Your task to perform on an android device: Empty the shopping cart on target.com. Add alienware area 51 to the cart on target.com, then select checkout. Image 0: 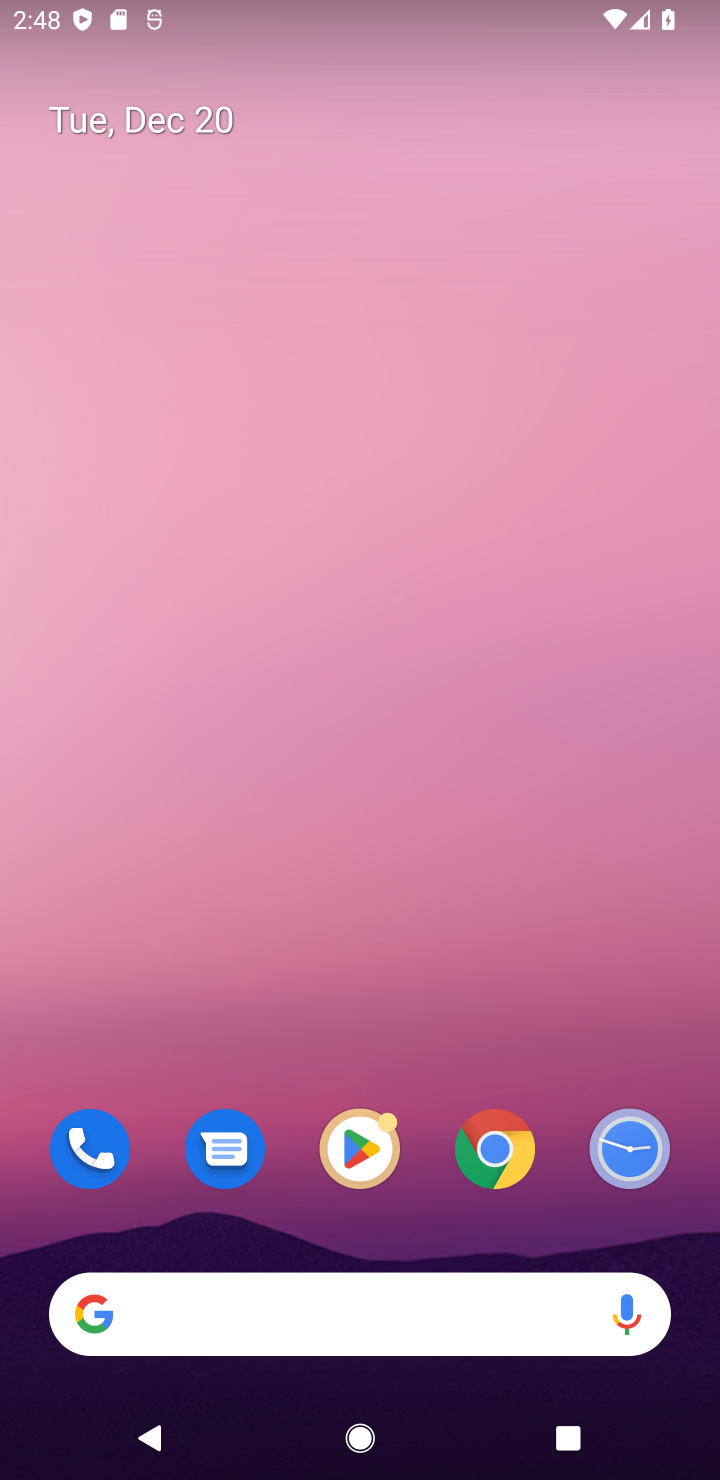
Step 0: click (487, 1152)
Your task to perform on an android device: Empty the shopping cart on target.com. Add alienware area 51 to the cart on target.com, then select checkout. Image 1: 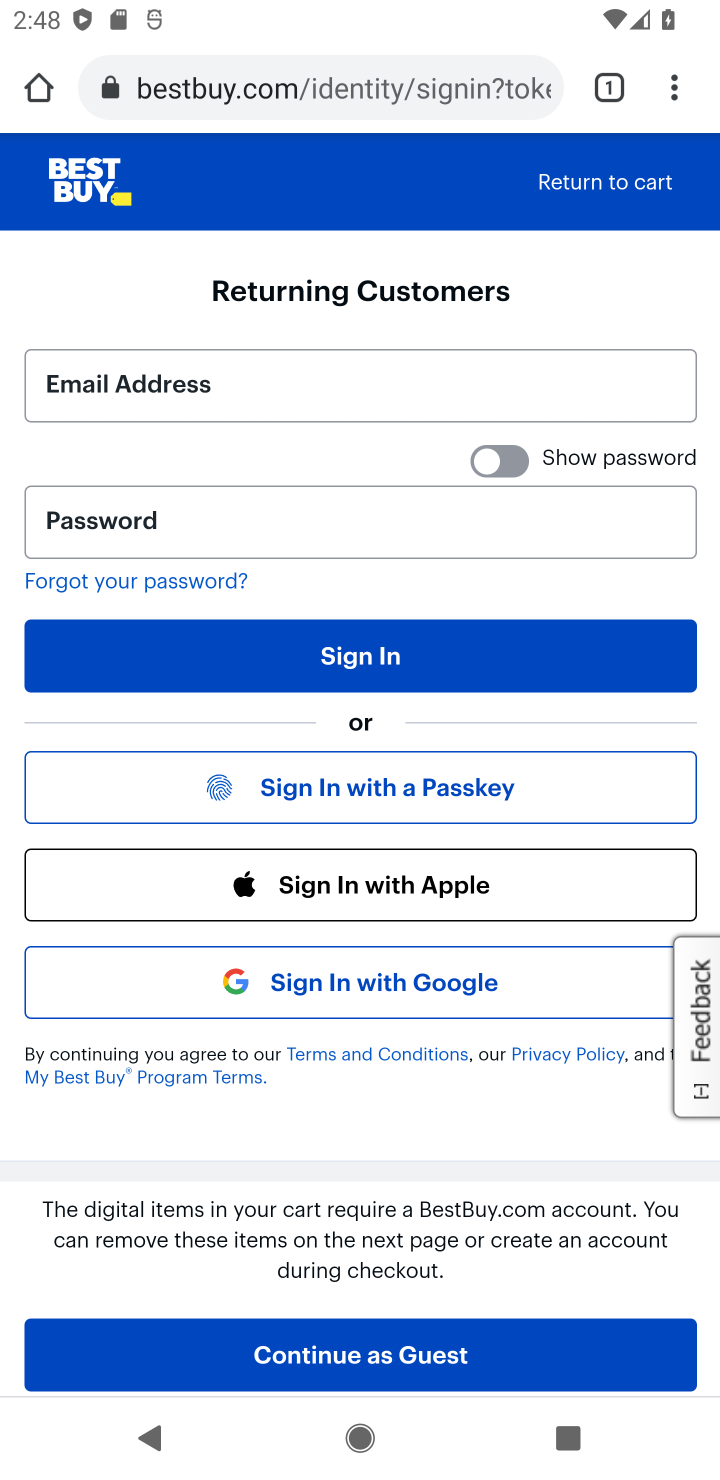
Step 1: click (260, 106)
Your task to perform on an android device: Empty the shopping cart on target.com. Add alienware area 51 to the cart on target.com, then select checkout. Image 2: 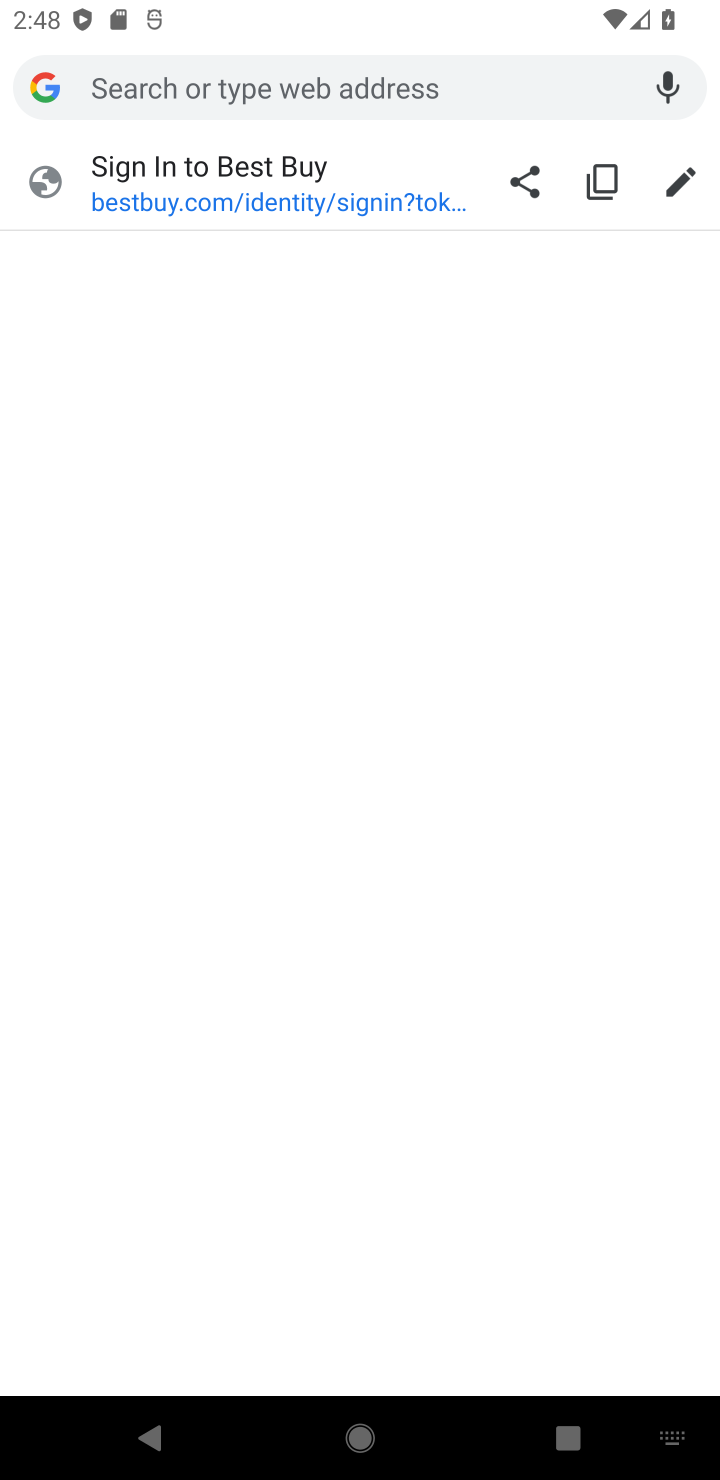
Step 2: type "target.com"
Your task to perform on an android device: Empty the shopping cart on target.com. Add alienware area 51 to the cart on target.com, then select checkout. Image 3: 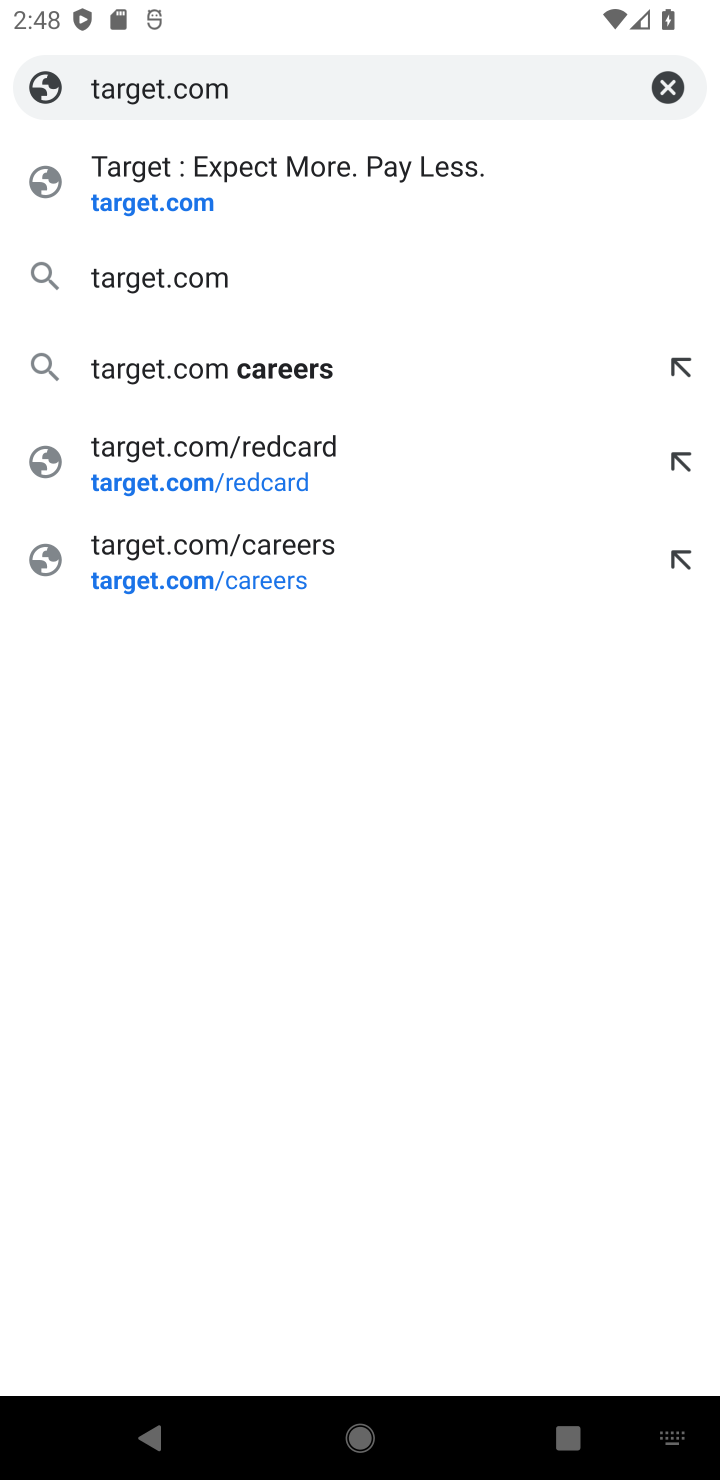
Step 3: click (181, 216)
Your task to perform on an android device: Empty the shopping cart on target.com. Add alienware area 51 to the cart on target.com, then select checkout. Image 4: 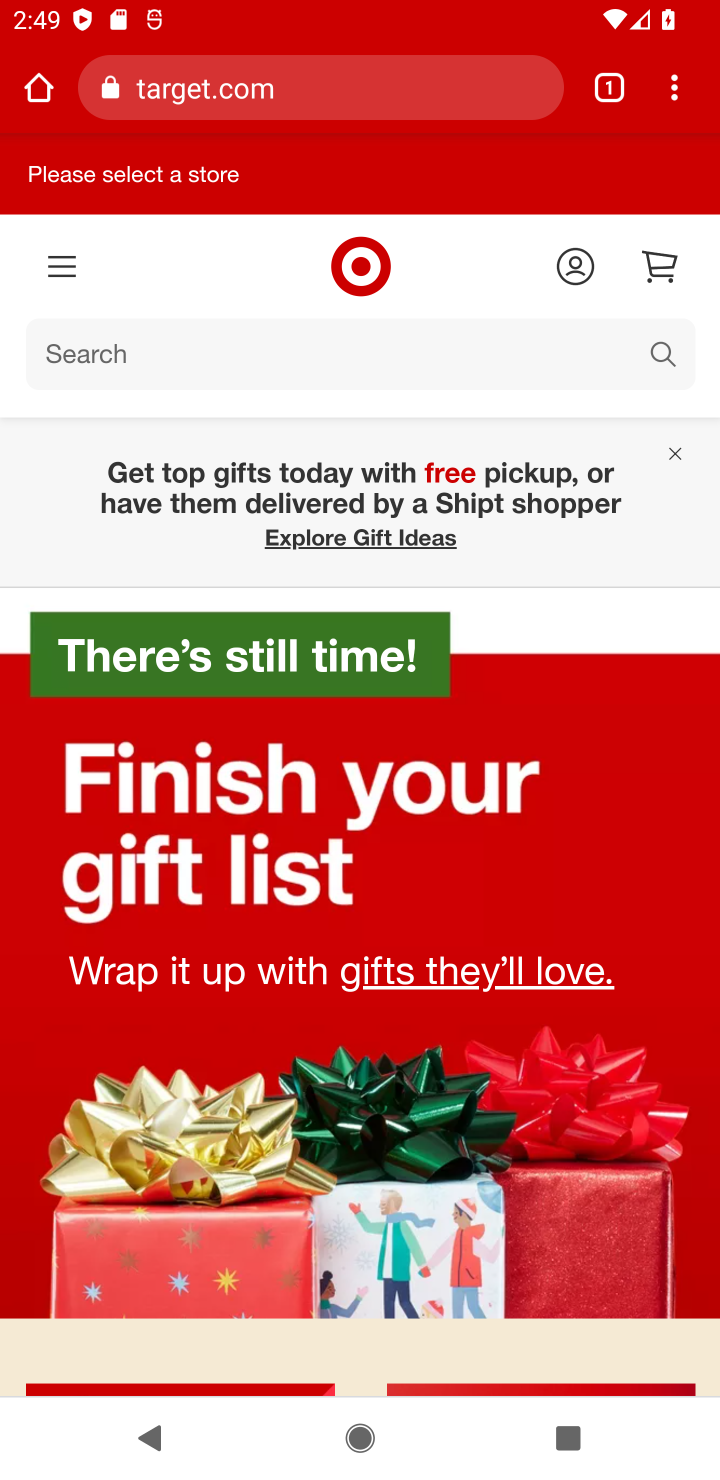
Step 4: click (649, 266)
Your task to perform on an android device: Empty the shopping cart on target.com. Add alienware area 51 to the cart on target.com, then select checkout. Image 5: 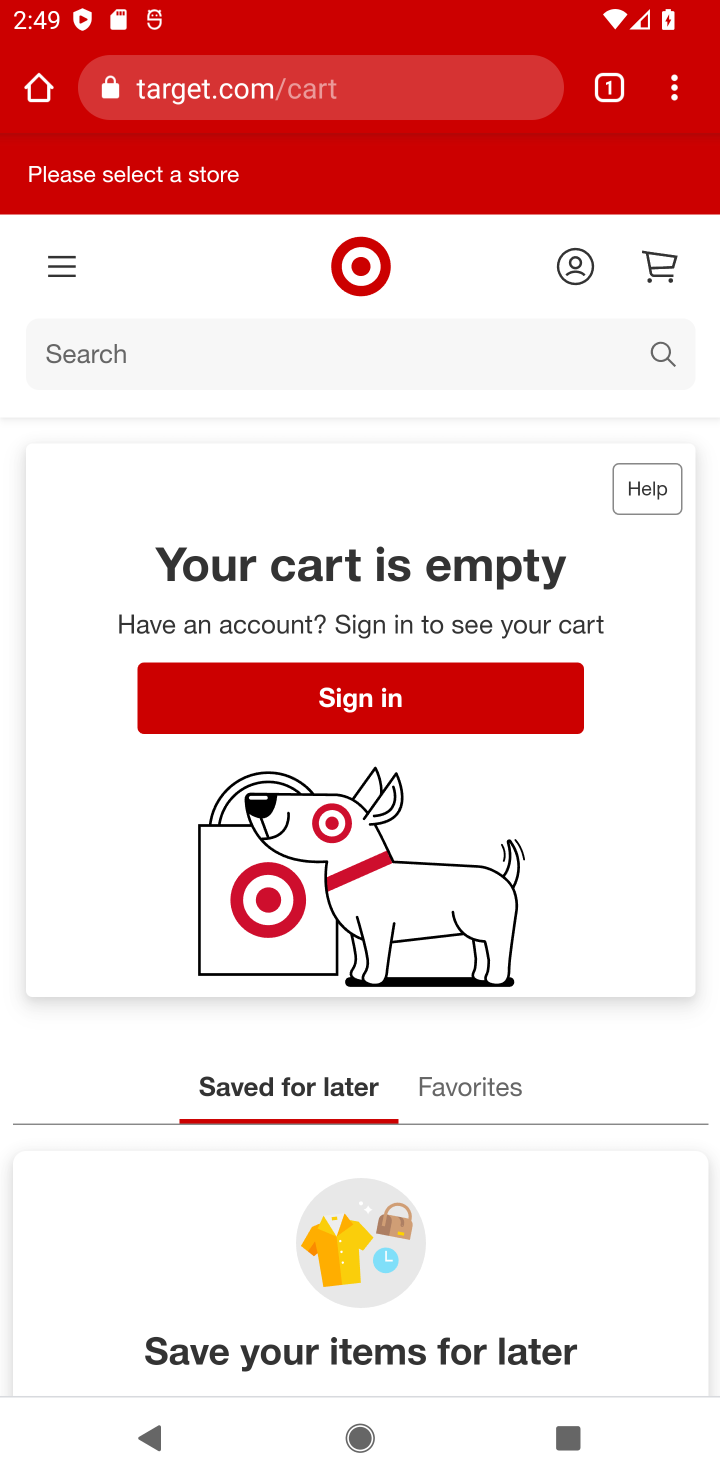
Step 5: click (114, 356)
Your task to perform on an android device: Empty the shopping cart on target.com. Add alienware area 51 to the cart on target.com, then select checkout. Image 6: 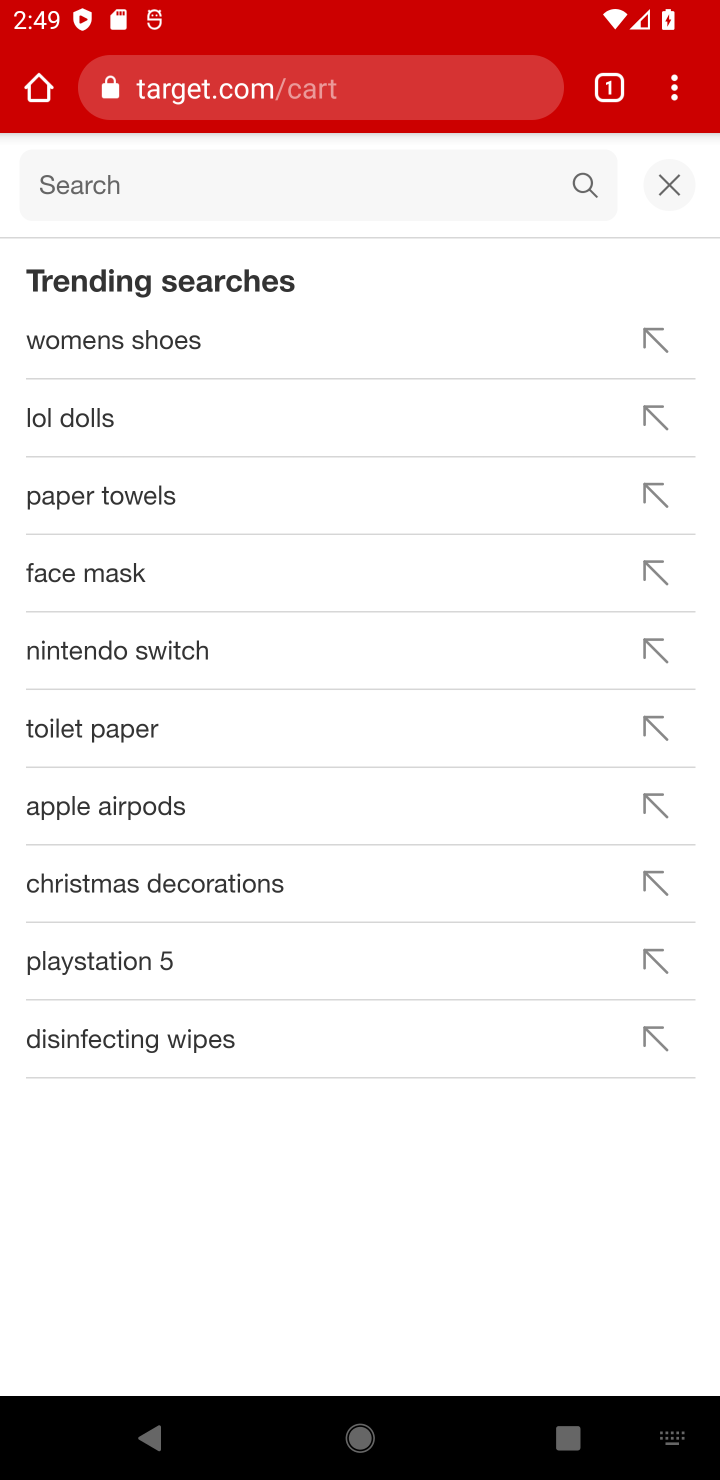
Step 6: type "alienware area 51"
Your task to perform on an android device: Empty the shopping cart on target.com. Add alienware area 51 to the cart on target.com, then select checkout. Image 7: 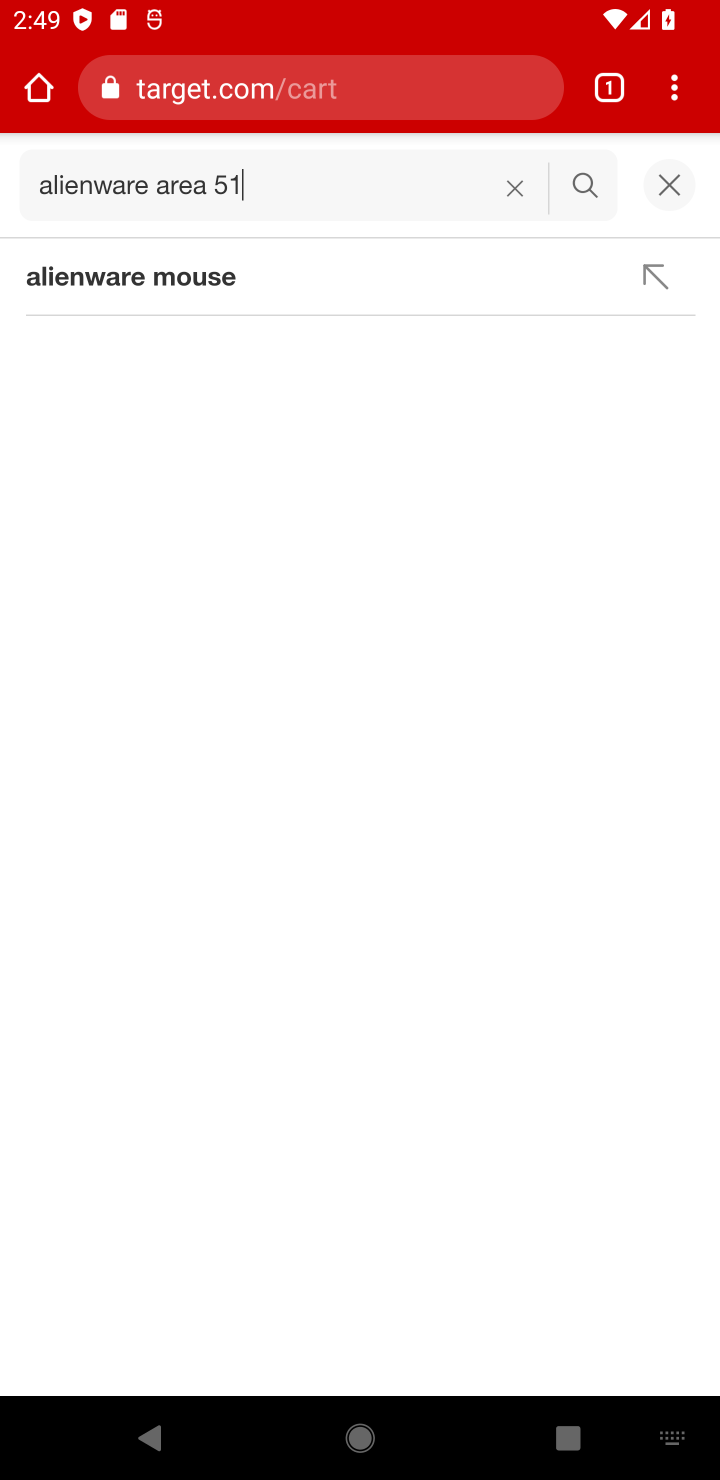
Step 7: click (588, 193)
Your task to perform on an android device: Empty the shopping cart on target.com. Add alienware area 51 to the cart on target.com, then select checkout. Image 8: 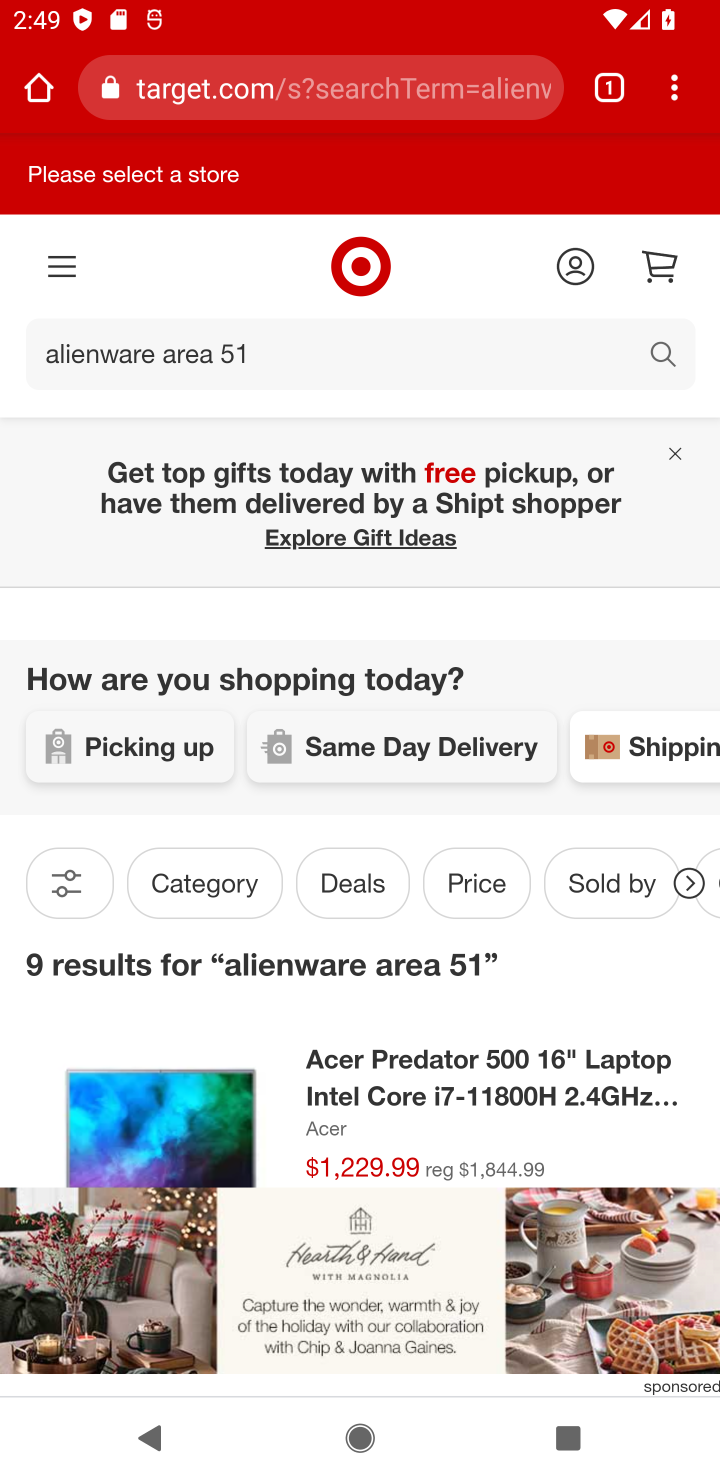
Step 8: task complete